Your task to perform on an android device: turn on showing notifications on the lock screen Image 0: 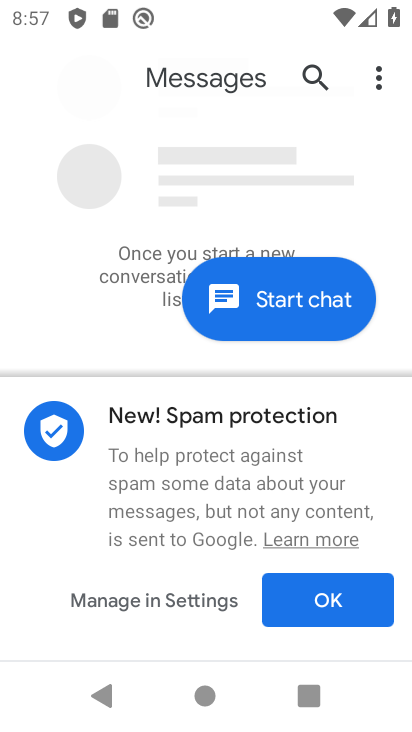
Step 0: press home button
Your task to perform on an android device: turn on showing notifications on the lock screen Image 1: 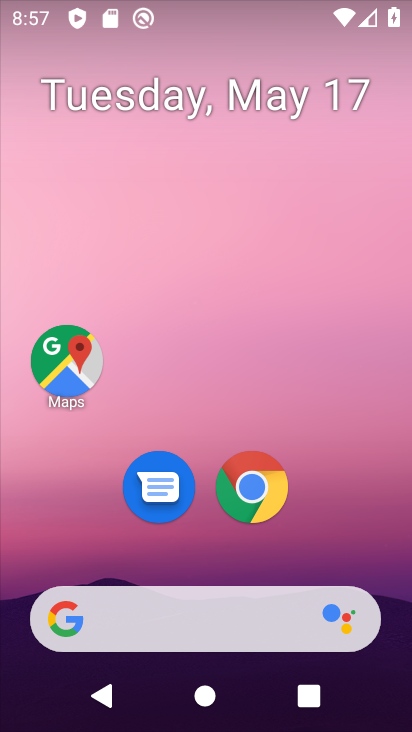
Step 1: drag from (242, 662) to (227, 264)
Your task to perform on an android device: turn on showing notifications on the lock screen Image 2: 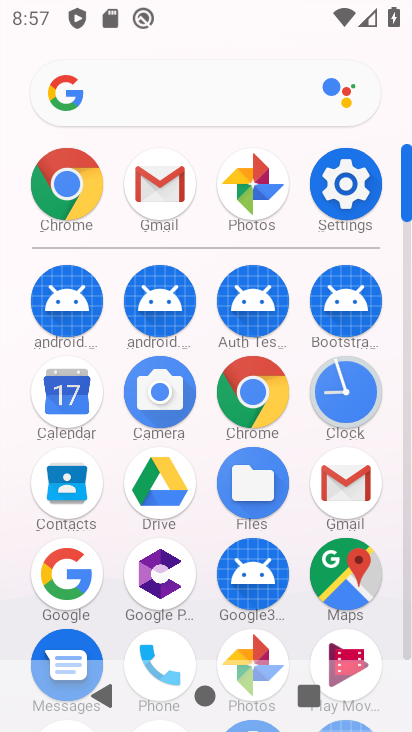
Step 2: click (331, 206)
Your task to perform on an android device: turn on showing notifications on the lock screen Image 3: 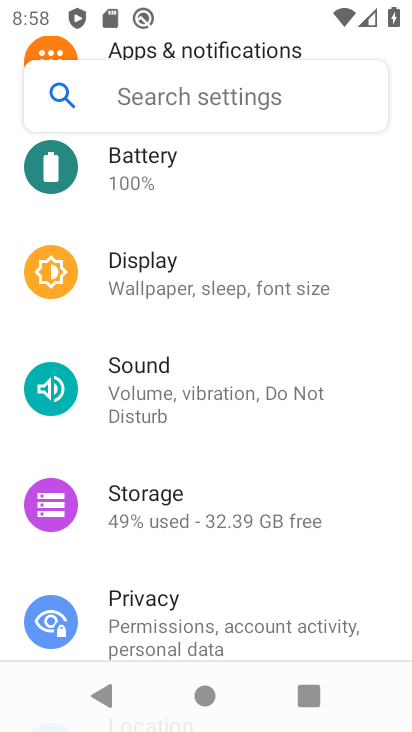
Step 3: click (176, 87)
Your task to perform on an android device: turn on showing notifications on the lock screen Image 4: 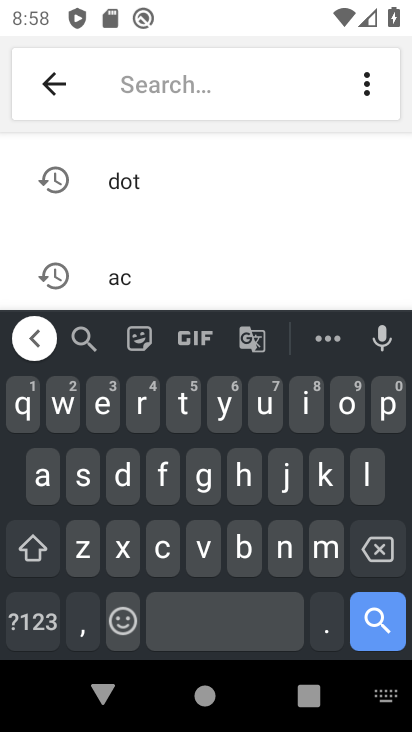
Step 4: click (288, 550)
Your task to perform on an android device: turn on showing notifications on the lock screen Image 5: 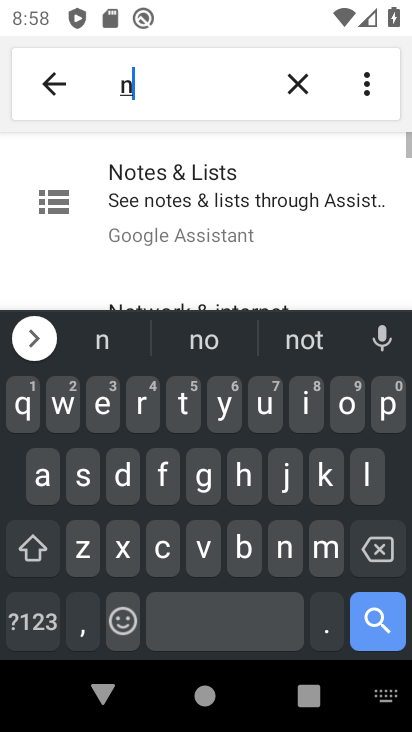
Step 5: click (356, 422)
Your task to perform on an android device: turn on showing notifications on the lock screen Image 6: 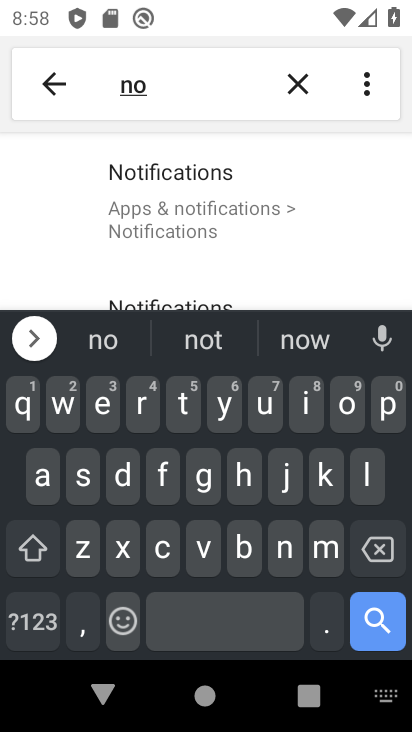
Step 6: click (239, 194)
Your task to perform on an android device: turn on showing notifications on the lock screen Image 7: 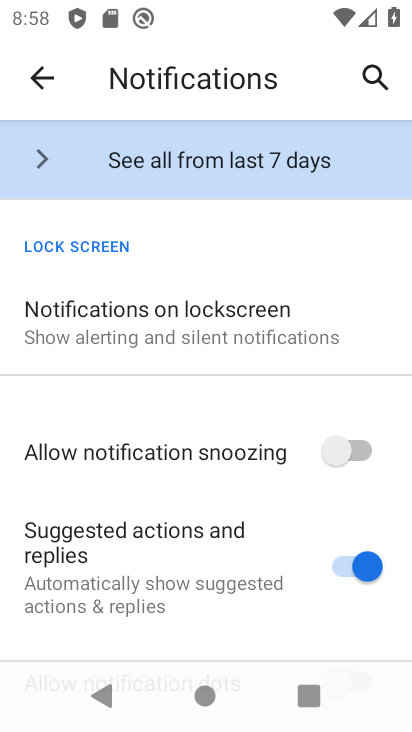
Step 7: click (160, 318)
Your task to perform on an android device: turn on showing notifications on the lock screen Image 8: 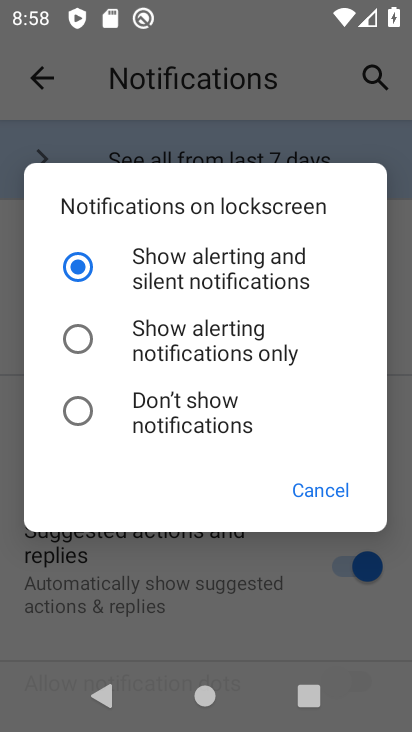
Step 8: task complete